Your task to perform on an android device: Go to internet settings Image 0: 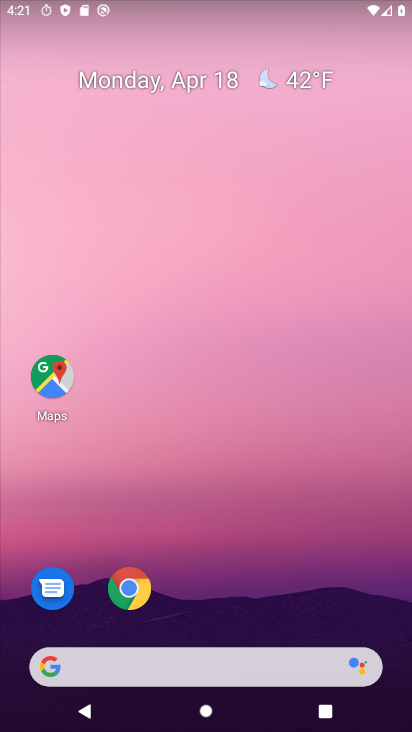
Step 0: task complete